Your task to perform on an android device: Go to notification settings Image 0: 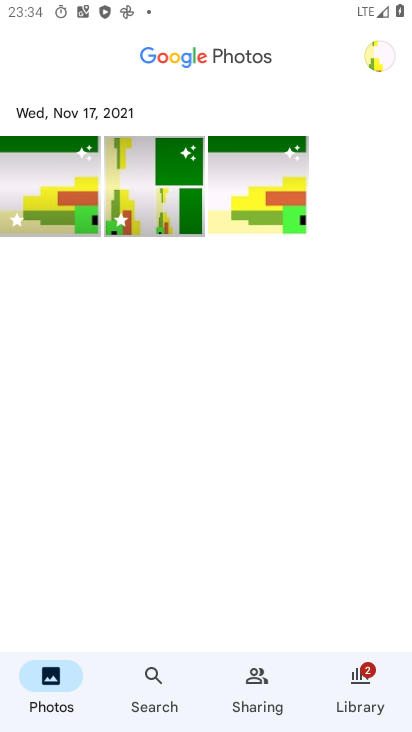
Step 0: press home button
Your task to perform on an android device: Go to notification settings Image 1: 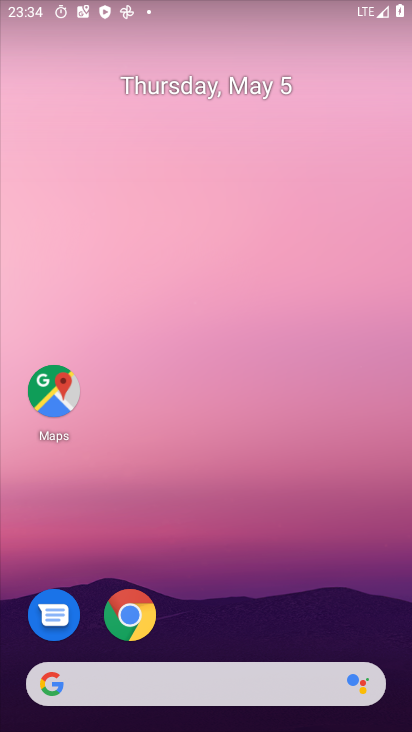
Step 1: drag from (234, 626) to (279, 72)
Your task to perform on an android device: Go to notification settings Image 2: 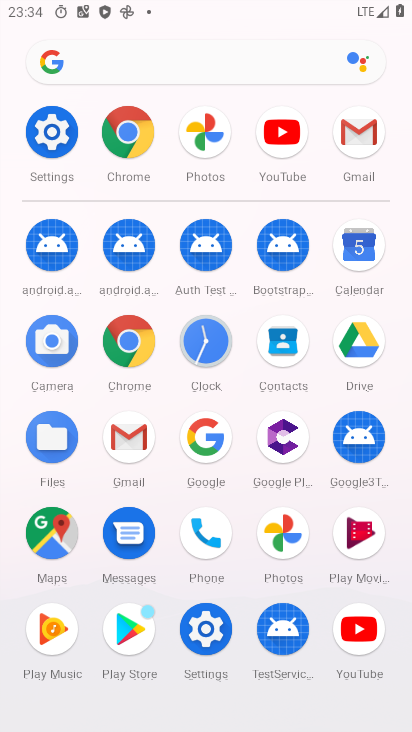
Step 2: click (207, 626)
Your task to perform on an android device: Go to notification settings Image 3: 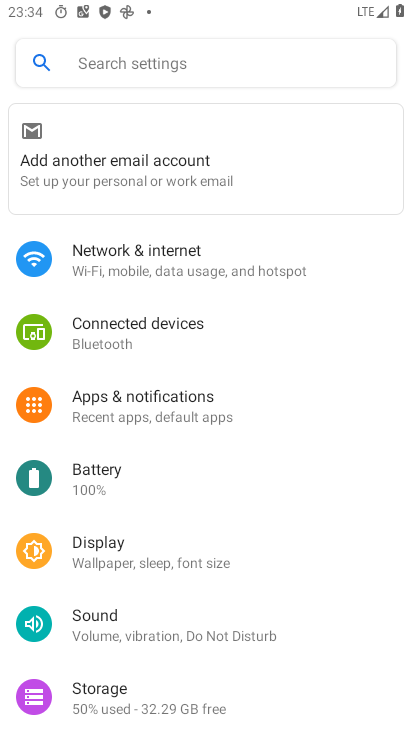
Step 3: click (169, 415)
Your task to perform on an android device: Go to notification settings Image 4: 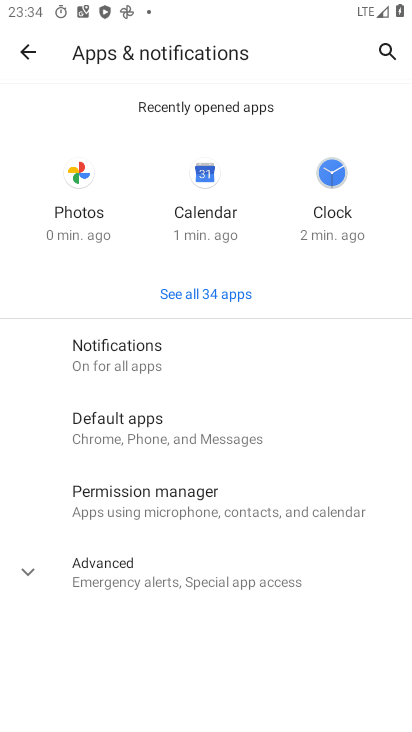
Step 4: click (143, 364)
Your task to perform on an android device: Go to notification settings Image 5: 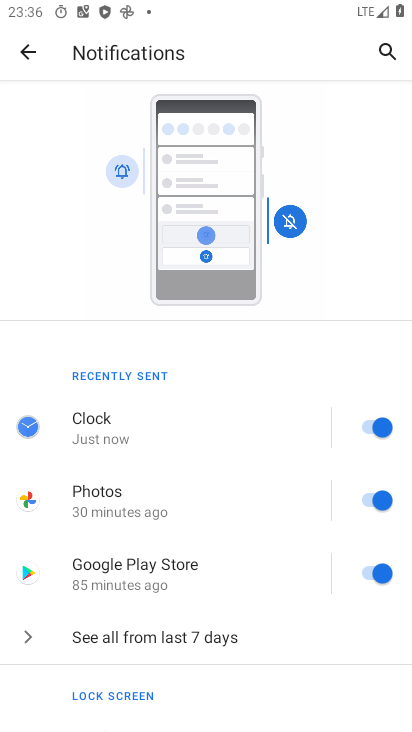
Step 5: task complete